Your task to perform on an android device: add a contact Image 0: 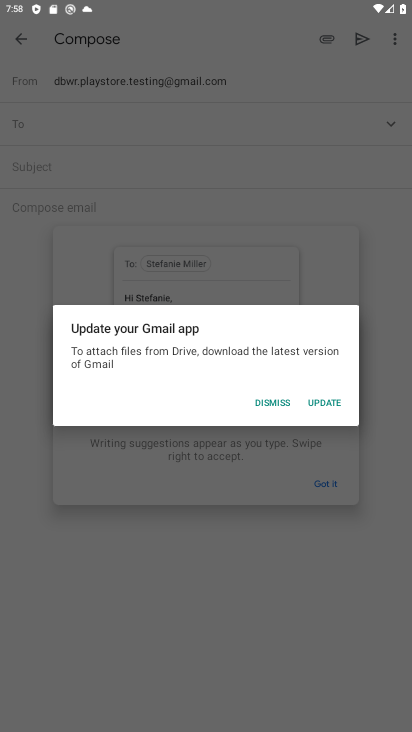
Step 0: press home button
Your task to perform on an android device: add a contact Image 1: 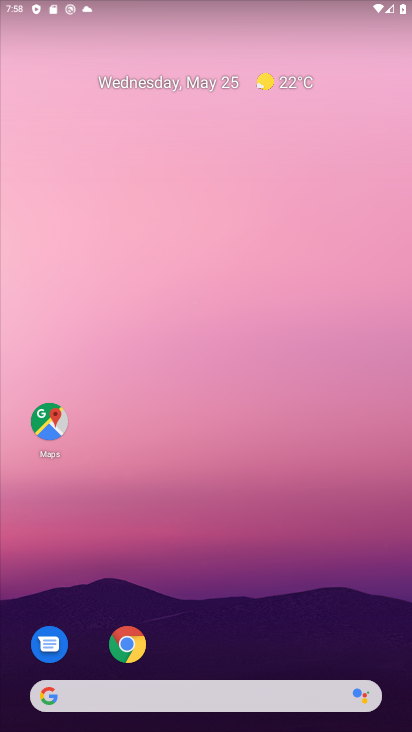
Step 1: drag from (191, 684) to (200, 35)
Your task to perform on an android device: add a contact Image 2: 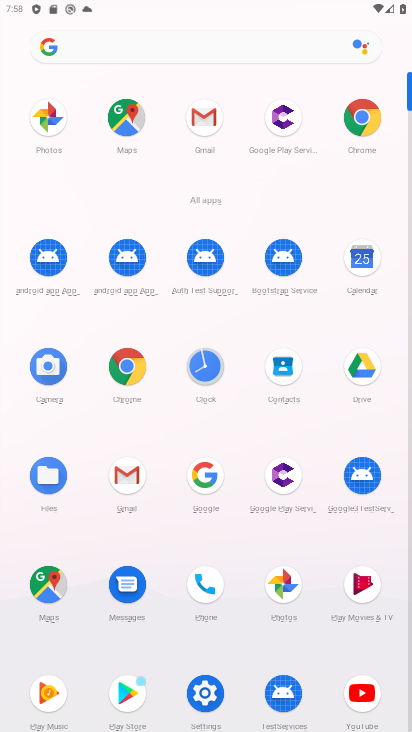
Step 2: click (361, 251)
Your task to perform on an android device: add a contact Image 3: 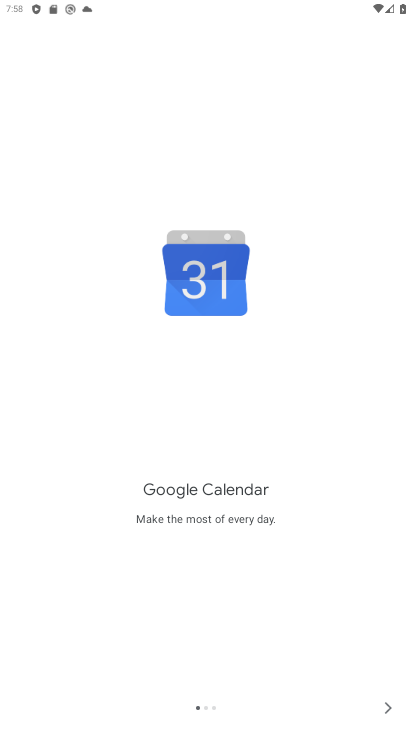
Step 3: press home button
Your task to perform on an android device: add a contact Image 4: 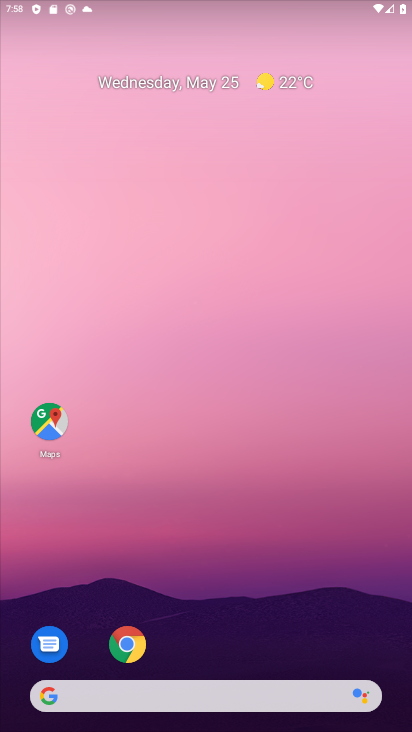
Step 4: drag from (186, 715) to (236, 147)
Your task to perform on an android device: add a contact Image 5: 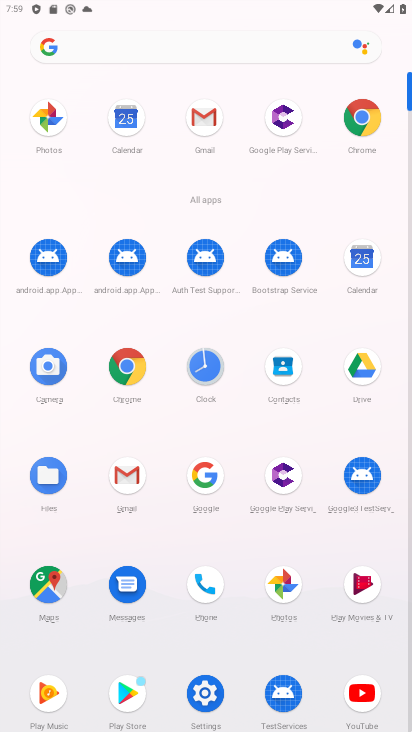
Step 5: click (288, 365)
Your task to perform on an android device: add a contact Image 6: 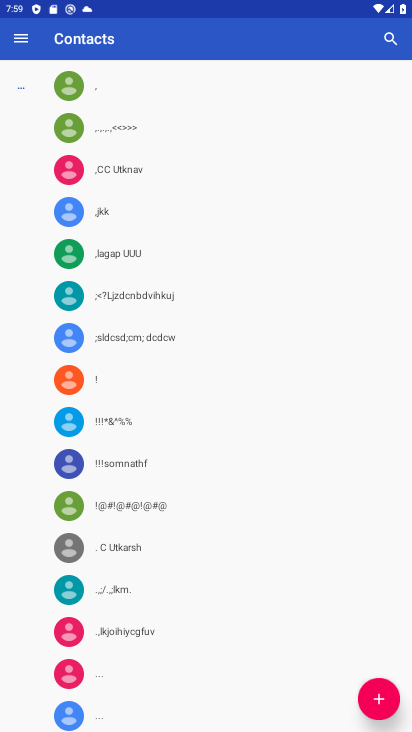
Step 6: click (374, 698)
Your task to perform on an android device: add a contact Image 7: 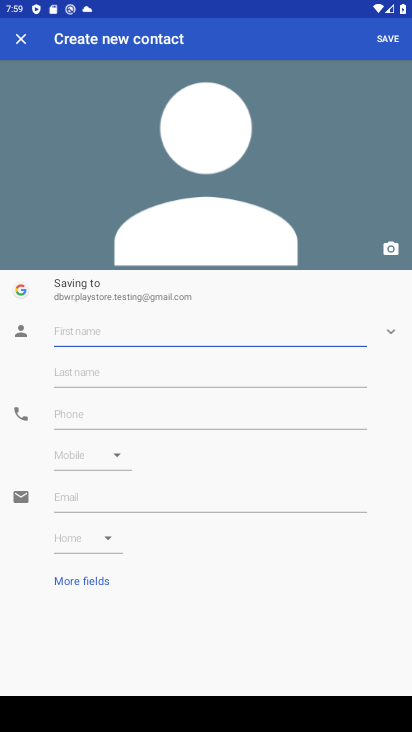
Step 7: type "KGF"
Your task to perform on an android device: add a contact Image 8: 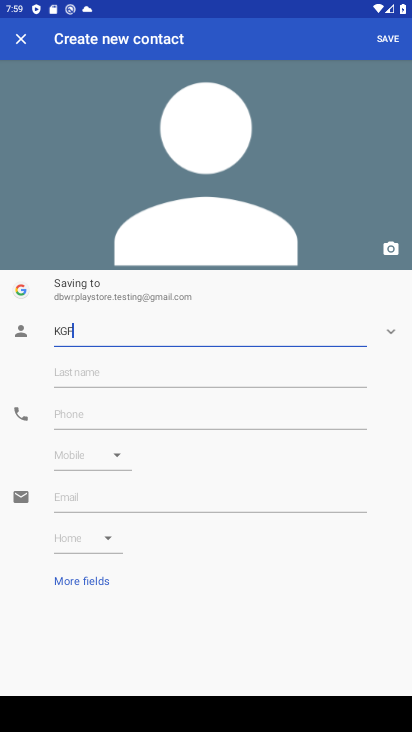
Step 8: click (371, 40)
Your task to perform on an android device: add a contact Image 9: 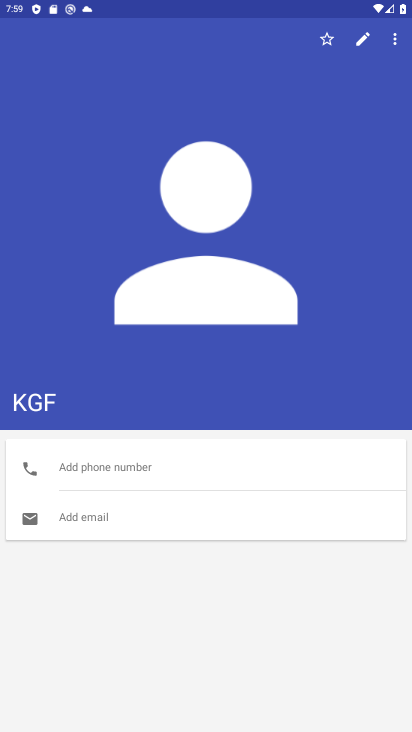
Step 9: task complete